Your task to perform on an android device: Go to Google Image 0: 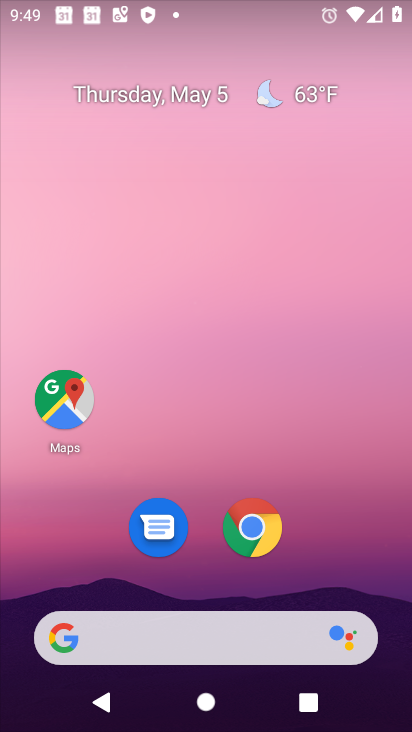
Step 0: drag from (263, 703) to (240, 127)
Your task to perform on an android device: Go to Google Image 1: 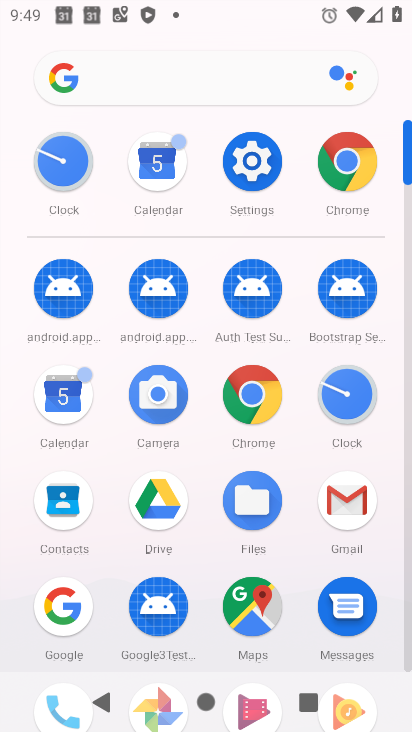
Step 1: click (56, 599)
Your task to perform on an android device: Go to Google Image 2: 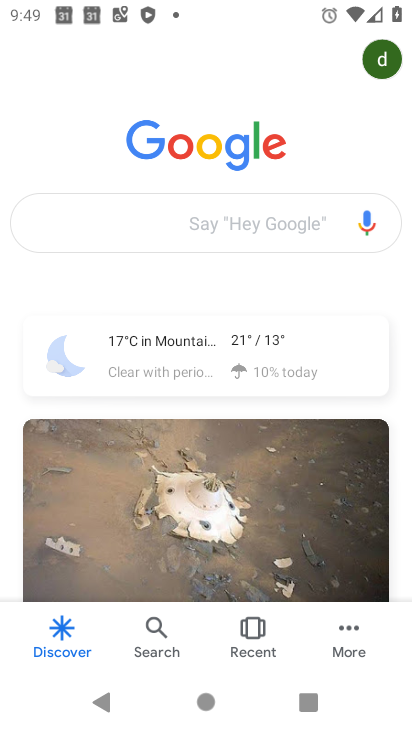
Step 2: task complete